Your task to perform on an android device: Go to location settings Image 0: 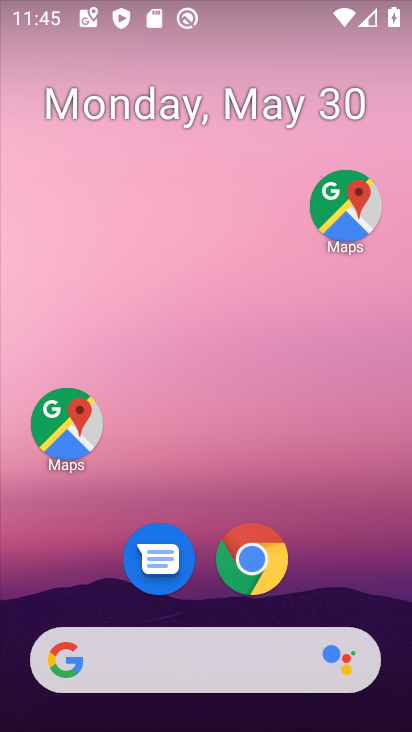
Step 0: drag from (356, 543) to (318, 91)
Your task to perform on an android device: Go to location settings Image 1: 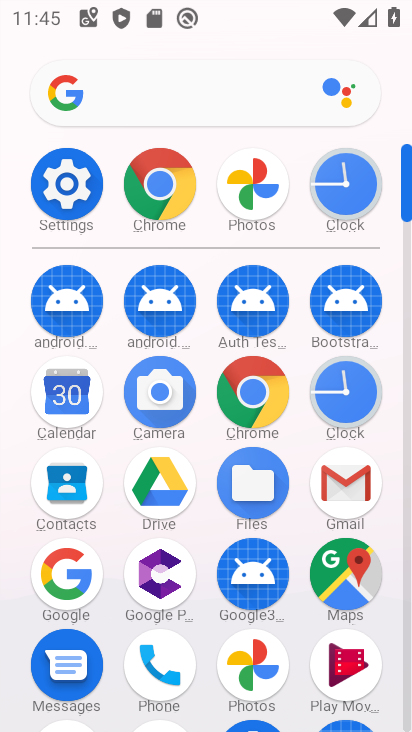
Step 1: click (58, 180)
Your task to perform on an android device: Go to location settings Image 2: 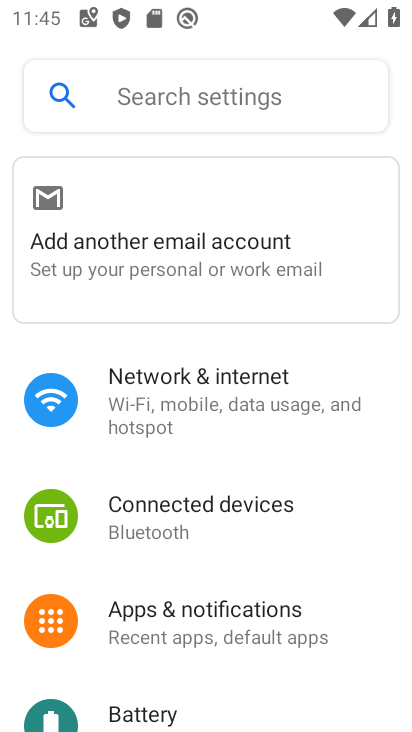
Step 2: drag from (208, 622) to (230, 201)
Your task to perform on an android device: Go to location settings Image 3: 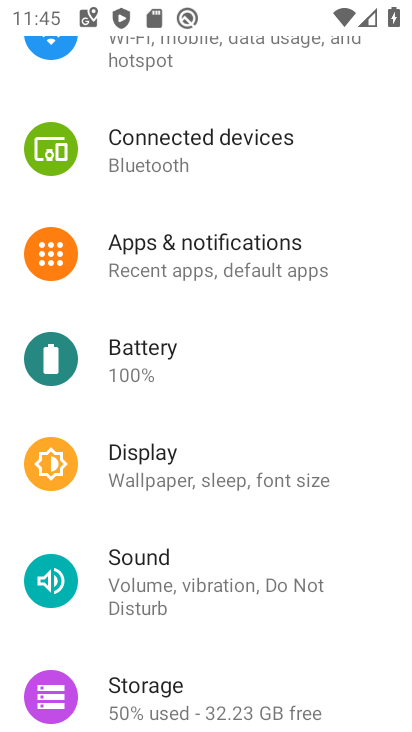
Step 3: drag from (183, 579) to (214, 106)
Your task to perform on an android device: Go to location settings Image 4: 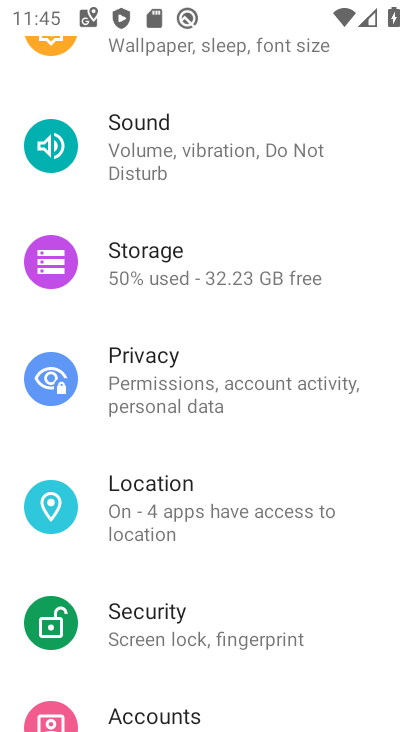
Step 4: click (222, 496)
Your task to perform on an android device: Go to location settings Image 5: 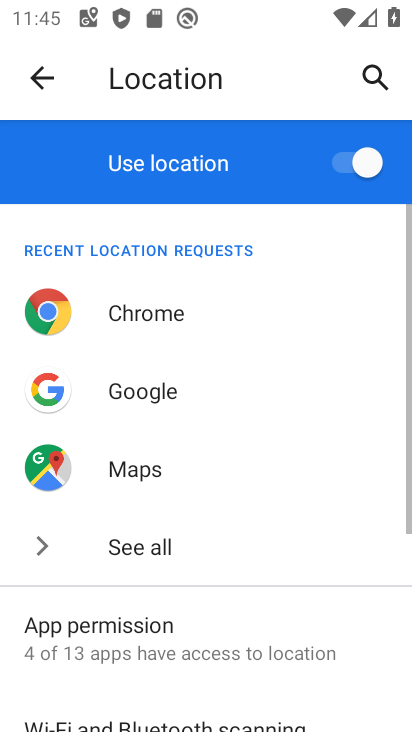
Step 5: task complete